Your task to perform on an android device: change the clock style Image 0: 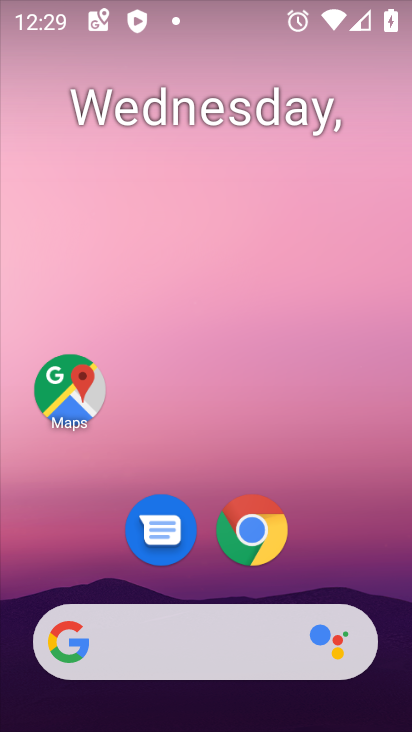
Step 0: drag from (267, 590) to (354, 166)
Your task to perform on an android device: change the clock style Image 1: 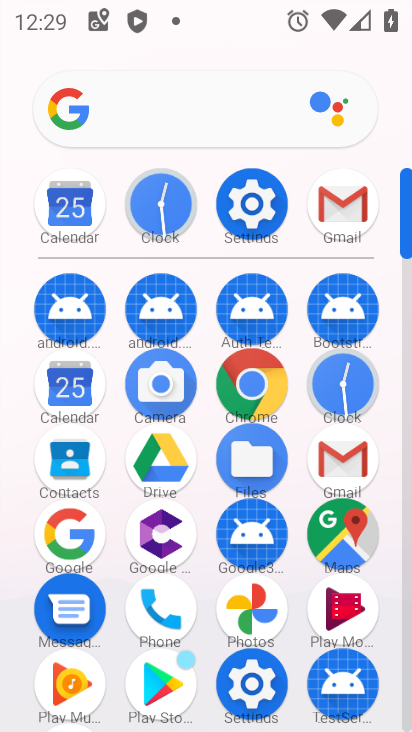
Step 1: click (344, 387)
Your task to perform on an android device: change the clock style Image 2: 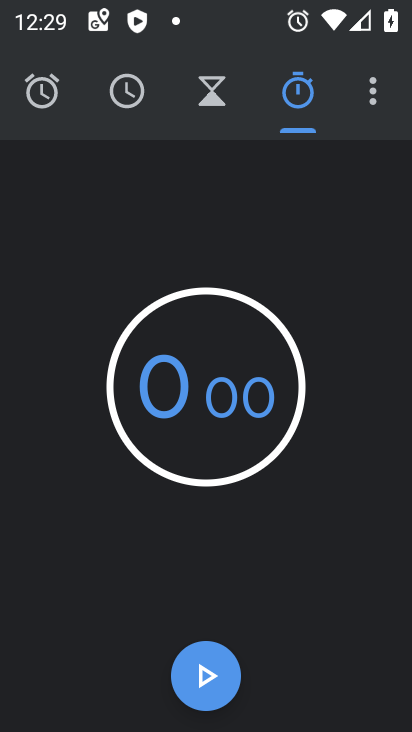
Step 2: click (374, 84)
Your task to perform on an android device: change the clock style Image 3: 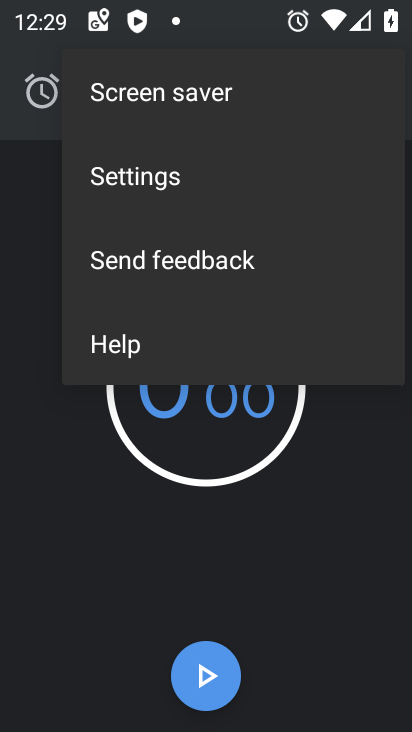
Step 3: click (159, 180)
Your task to perform on an android device: change the clock style Image 4: 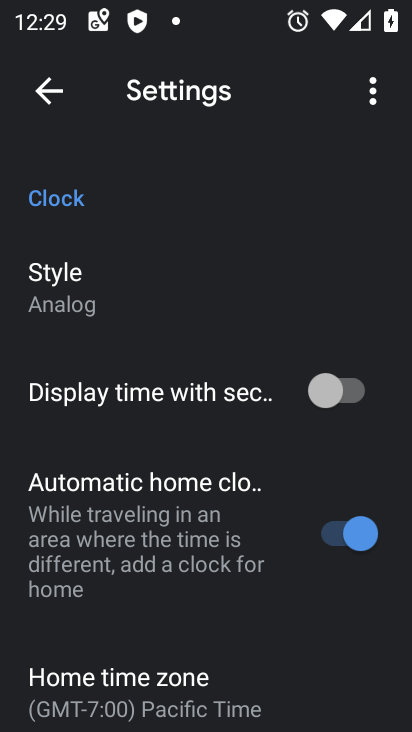
Step 4: click (61, 283)
Your task to perform on an android device: change the clock style Image 5: 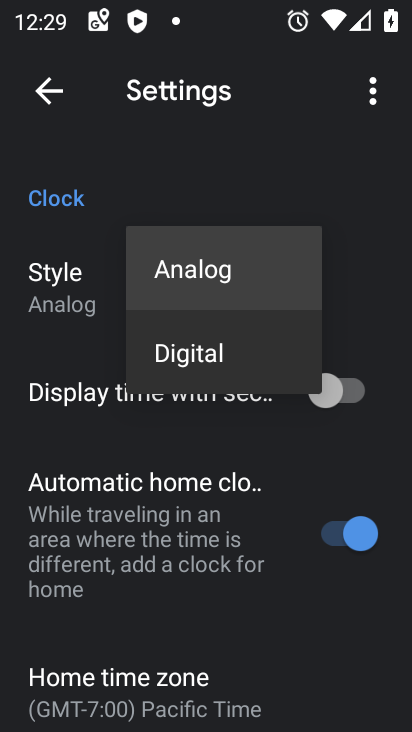
Step 5: click (165, 353)
Your task to perform on an android device: change the clock style Image 6: 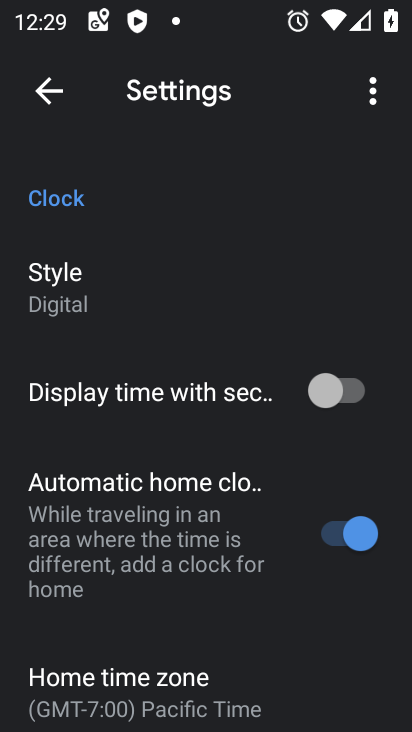
Step 6: task complete